Your task to perform on an android device: clear history in the chrome app Image 0: 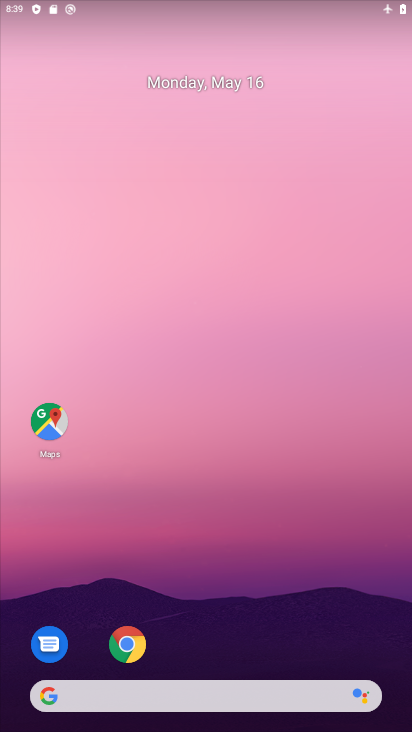
Step 0: click (122, 636)
Your task to perform on an android device: clear history in the chrome app Image 1: 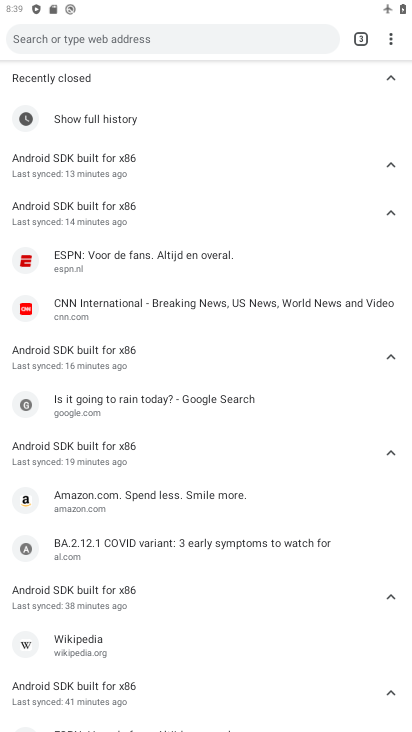
Step 1: click (382, 40)
Your task to perform on an android device: clear history in the chrome app Image 2: 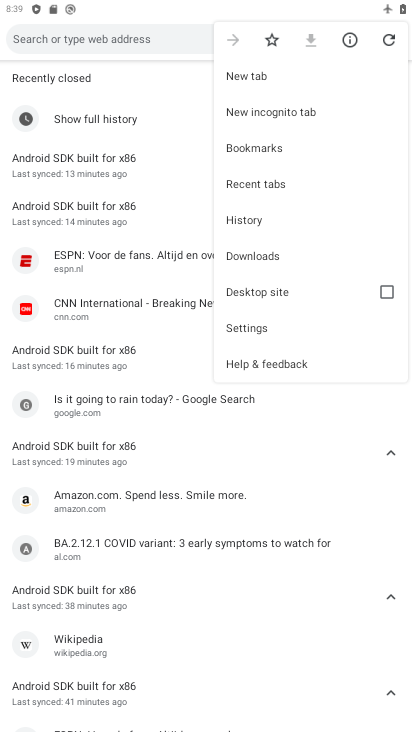
Step 2: click (268, 223)
Your task to perform on an android device: clear history in the chrome app Image 3: 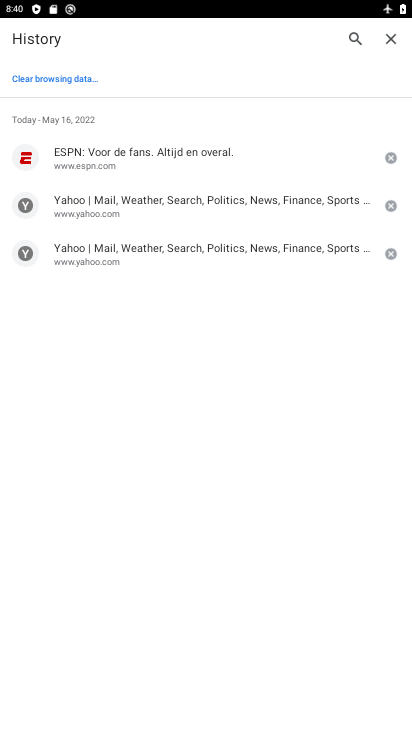
Step 3: click (53, 78)
Your task to perform on an android device: clear history in the chrome app Image 4: 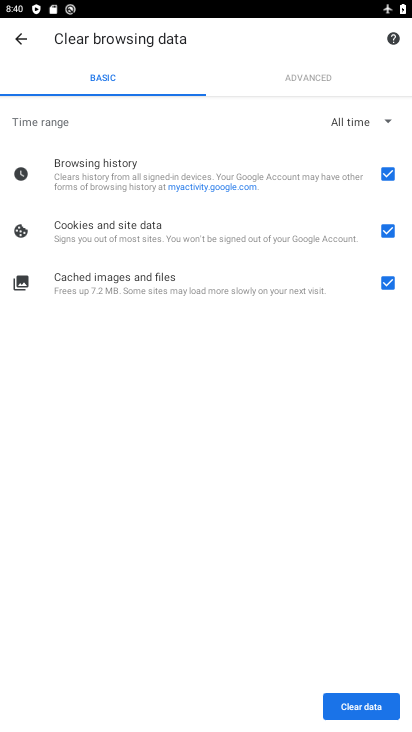
Step 4: click (353, 703)
Your task to perform on an android device: clear history in the chrome app Image 5: 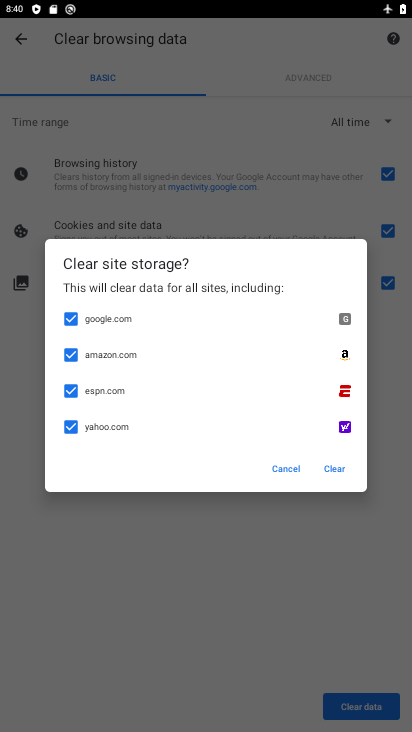
Step 5: click (337, 469)
Your task to perform on an android device: clear history in the chrome app Image 6: 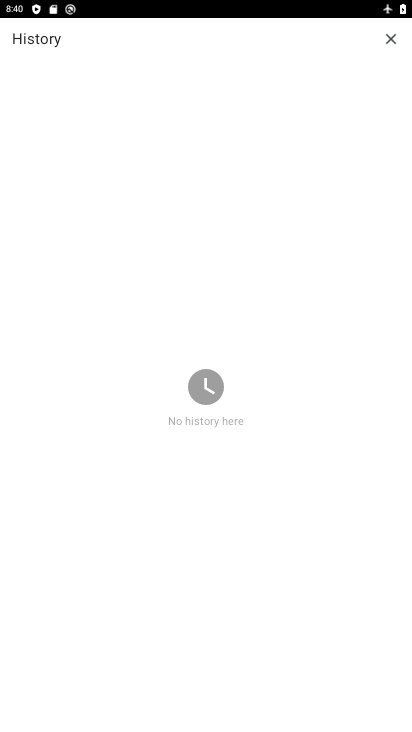
Step 6: task complete